Your task to perform on an android device: Search for seafood restaurants on Google Maps Image 0: 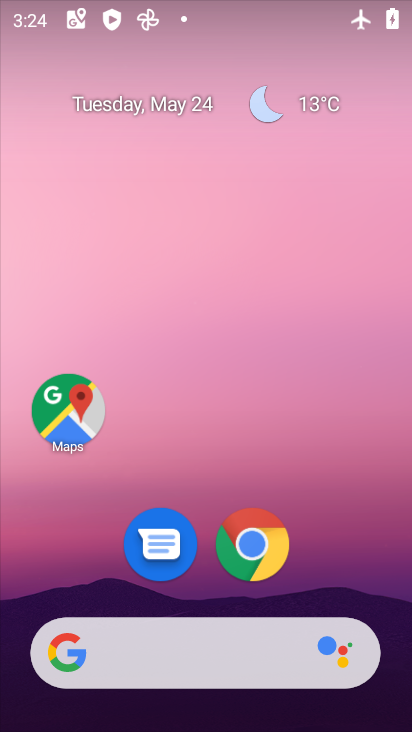
Step 0: drag from (366, 444) to (313, 50)
Your task to perform on an android device: Search for seafood restaurants on Google Maps Image 1: 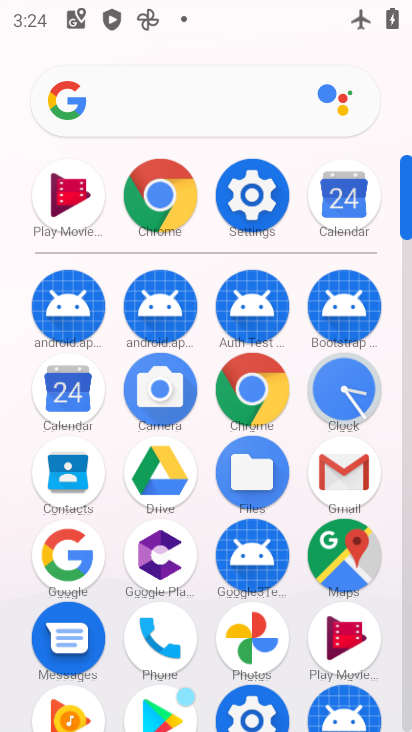
Step 1: click (358, 559)
Your task to perform on an android device: Search for seafood restaurants on Google Maps Image 2: 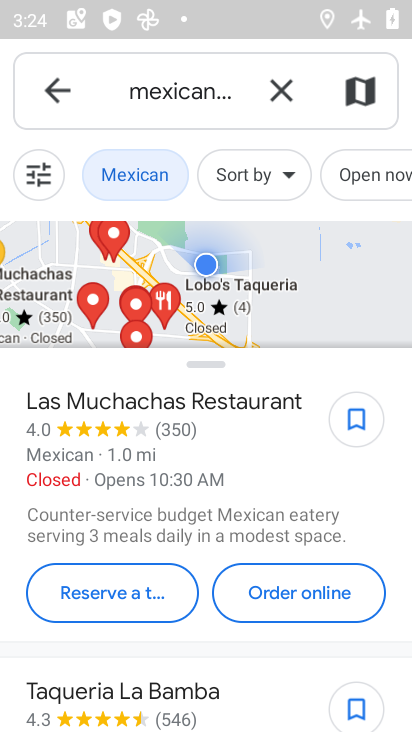
Step 2: click (277, 91)
Your task to perform on an android device: Search for seafood restaurants on Google Maps Image 3: 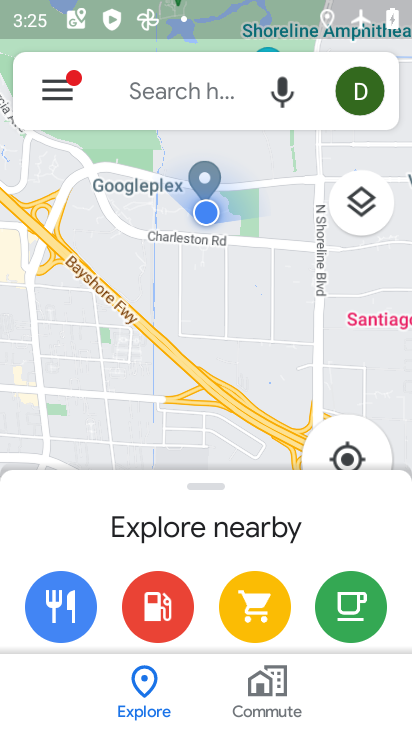
Step 3: click (123, 78)
Your task to perform on an android device: Search for seafood restaurants on Google Maps Image 4: 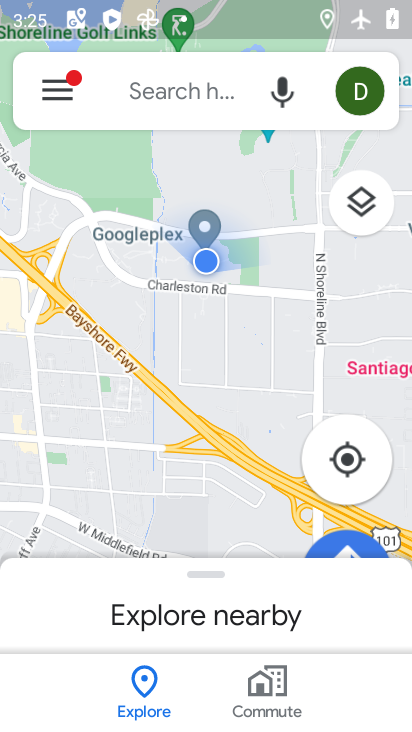
Step 4: click (152, 96)
Your task to perform on an android device: Search for seafood restaurants on Google Maps Image 5: 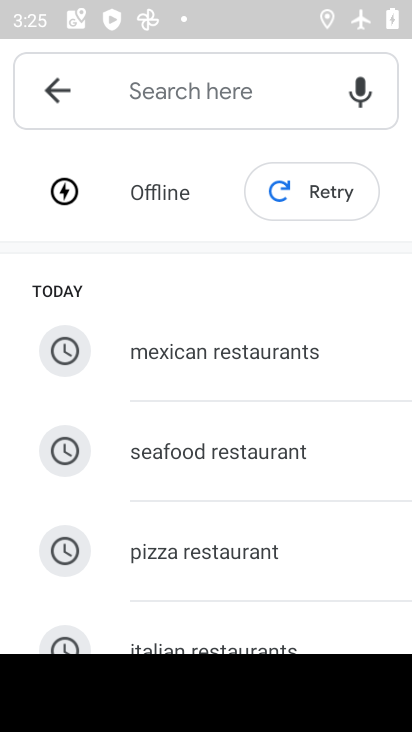
Step 5: click (225, 449)
Your task to perform on an android device: Search for seafood restaurants on Google Maps Image 6: 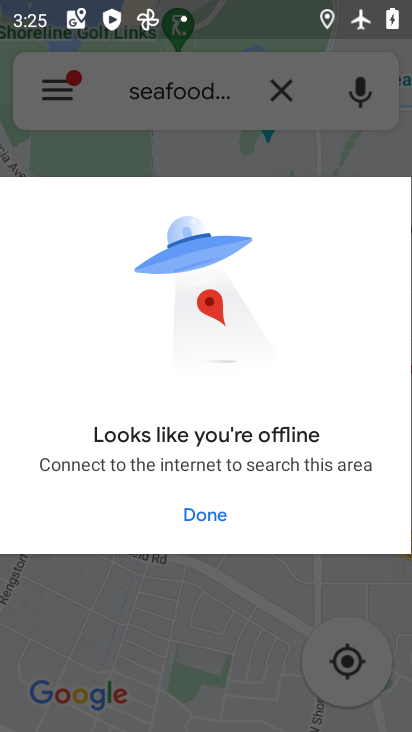
Step 6: task complete